Your task to perform on an android device: open app "Adobe Acrobat Reader" Image 0: 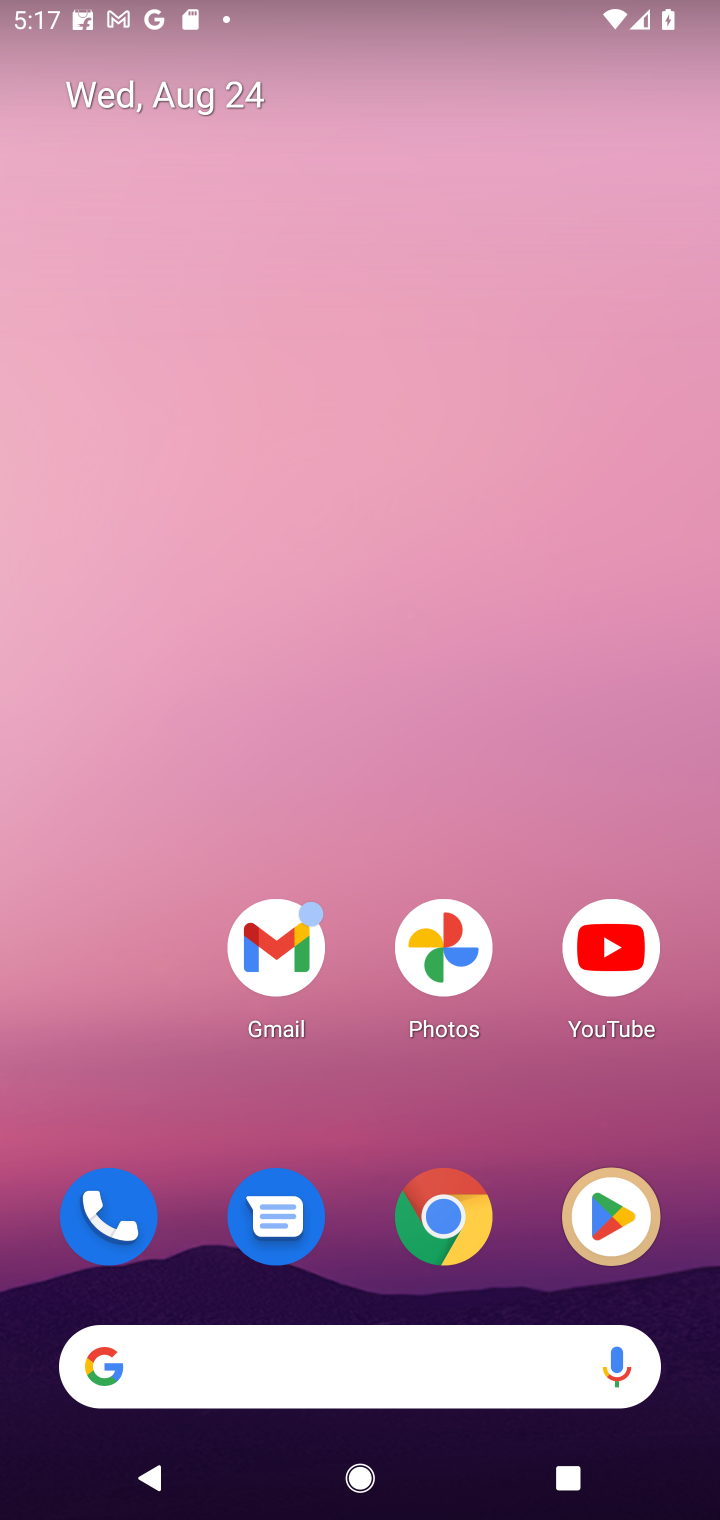
Step 0: click (595, 1192)
Your task to perform on an android device: open app "Adobe Acrobat Reader" Image 1: 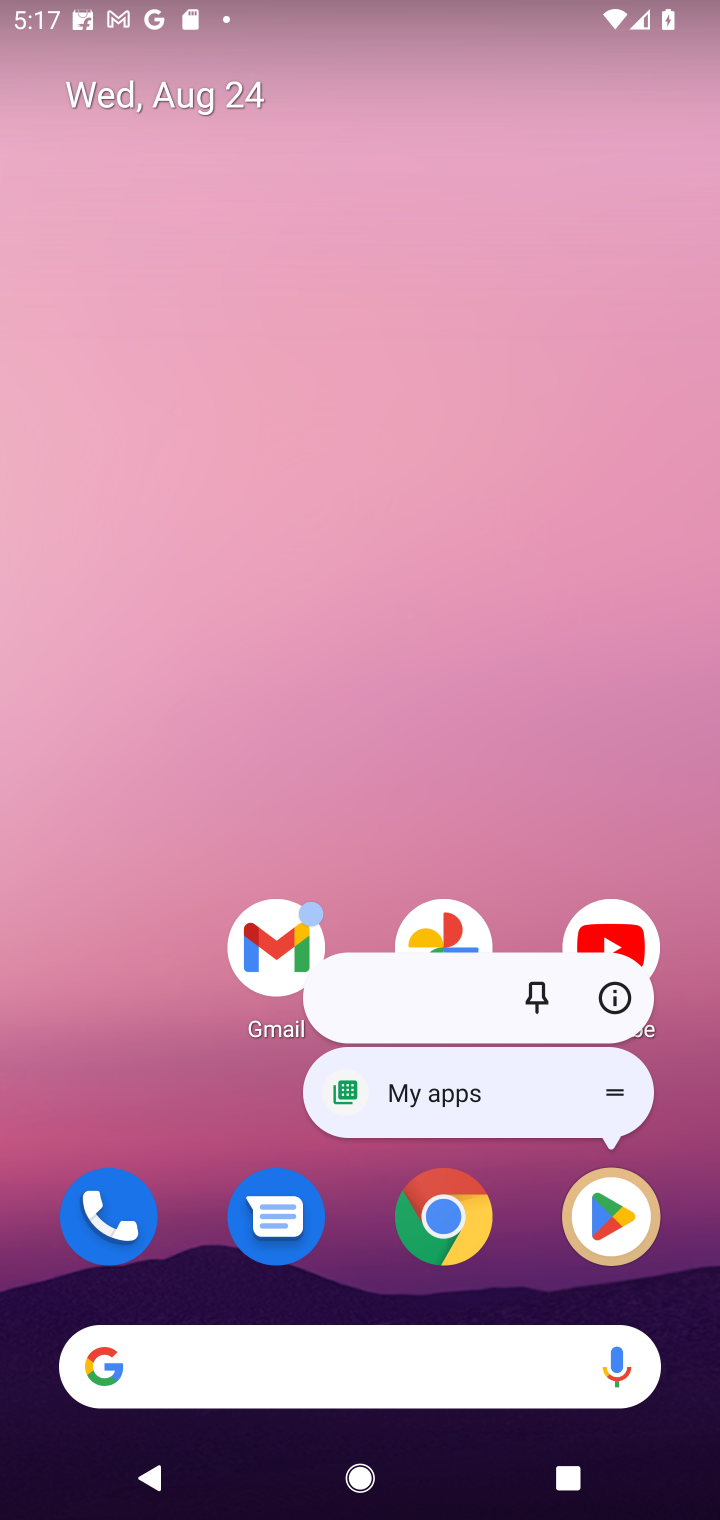
Step 1: click (625, 1190)
Your task to perform on an android device: open app "Adobe Acrobat Reader" Image 2: 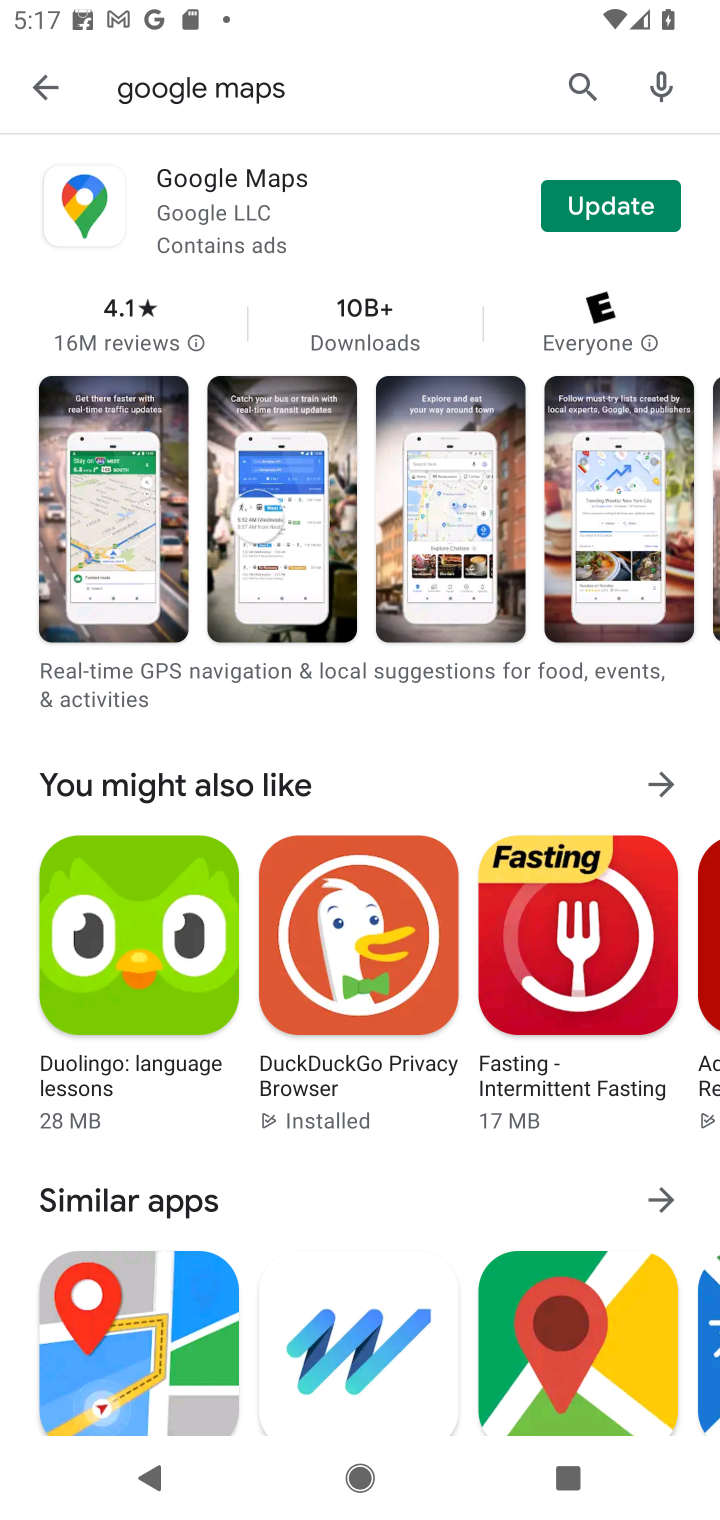
Step 2: click (589, 84)
Your task to perform on an android device: open app "Adobe Acrobat Reader" Image 3: 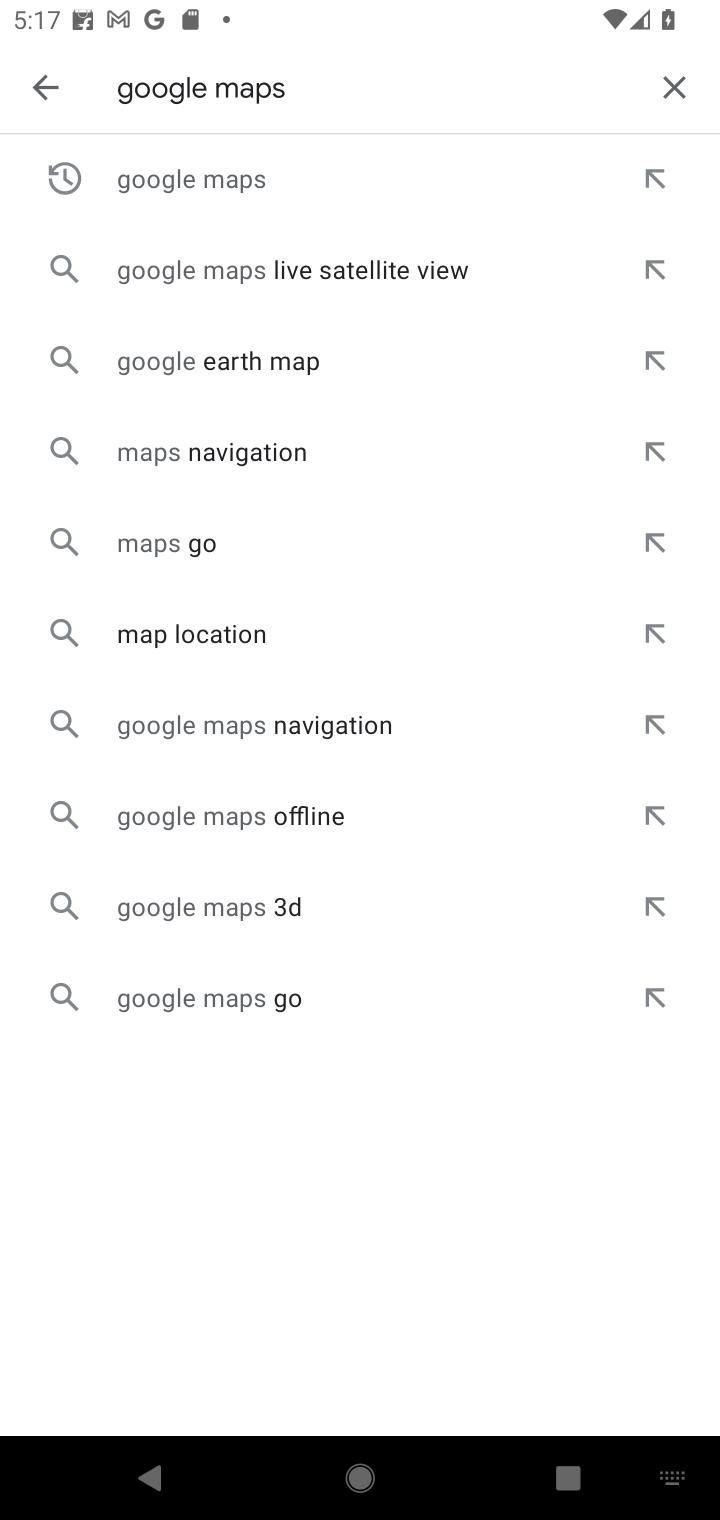
Step 3: click (656, 89)
Your task to perform on an android device: open app "Adobe Acrobat Reader" Image 4: 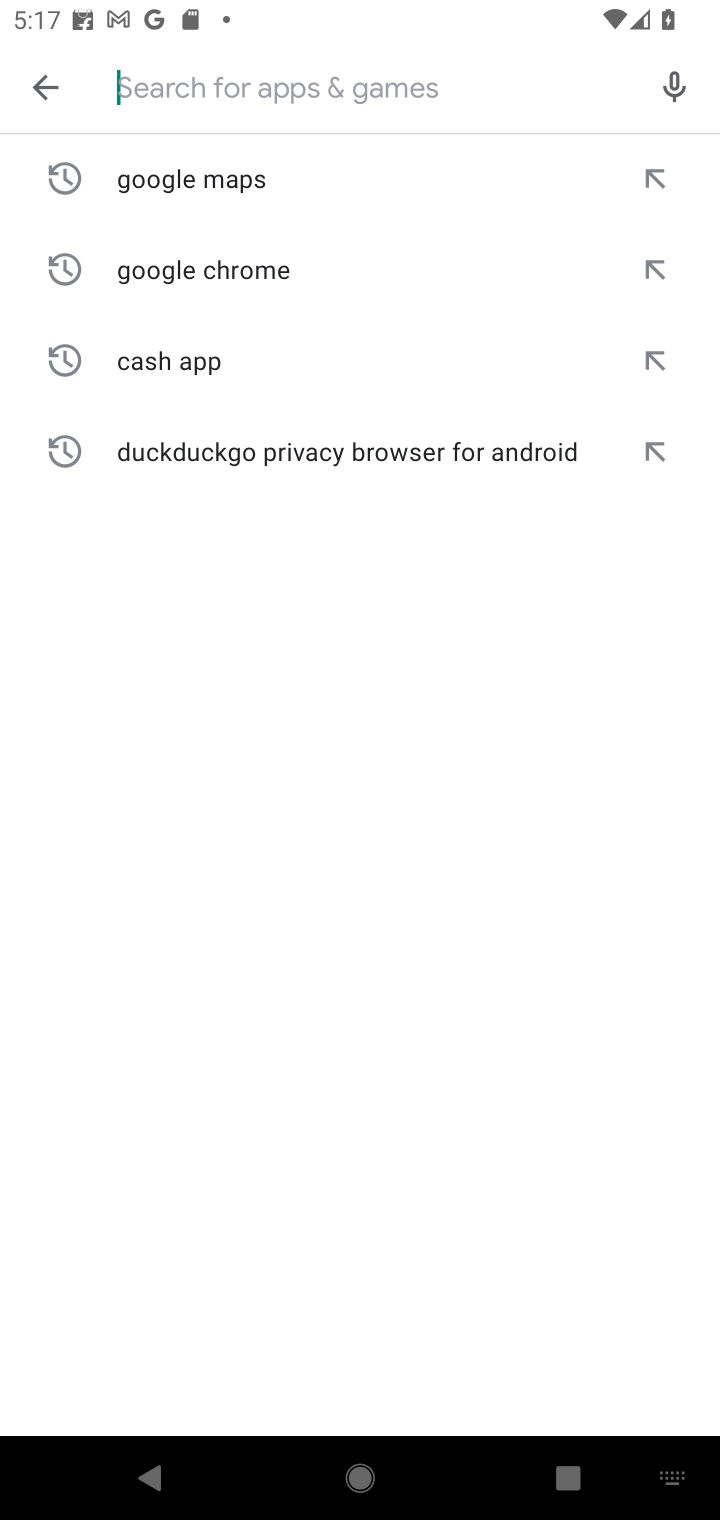
Step 4: type "Adobe Acrobat Reade"
Your task to perform on an android device: open app "Adobe Acrobat Reader" Image 5: 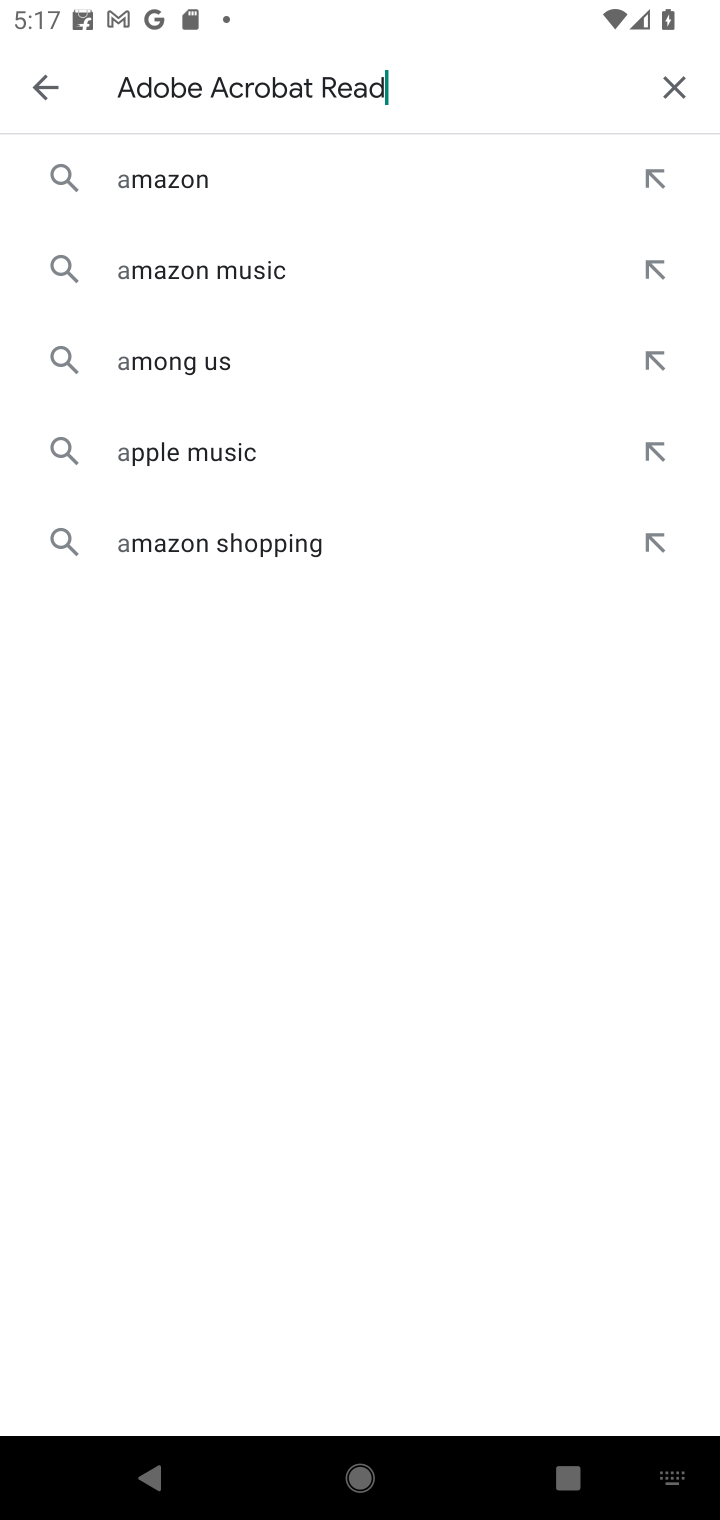
Step 5: type ""
Your task to perform on an android device: open app "Adobe Acrobat Reader" Image 6: 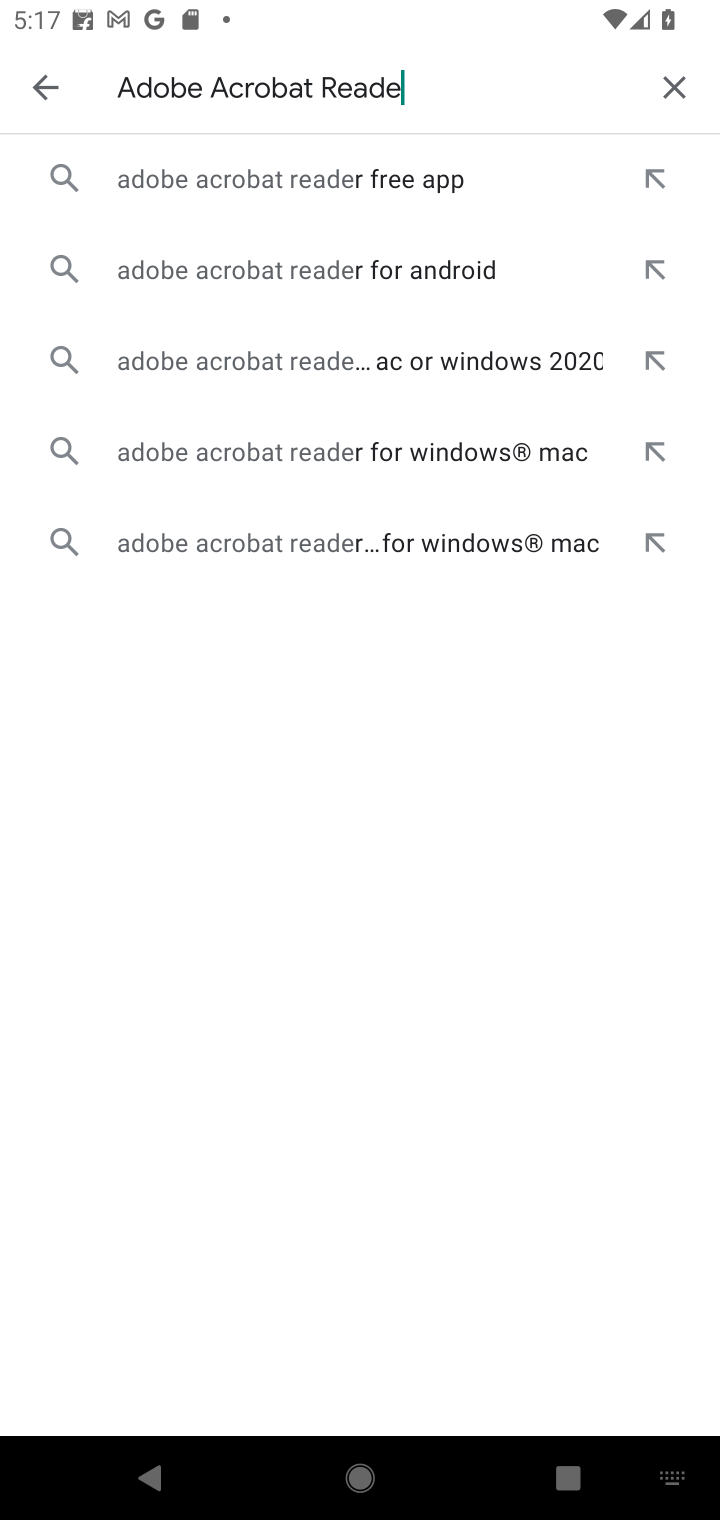
Step 6: click (286, 198)
Your task to perform on an android device: open app "Adobe Acrobat Reader" Image 7: 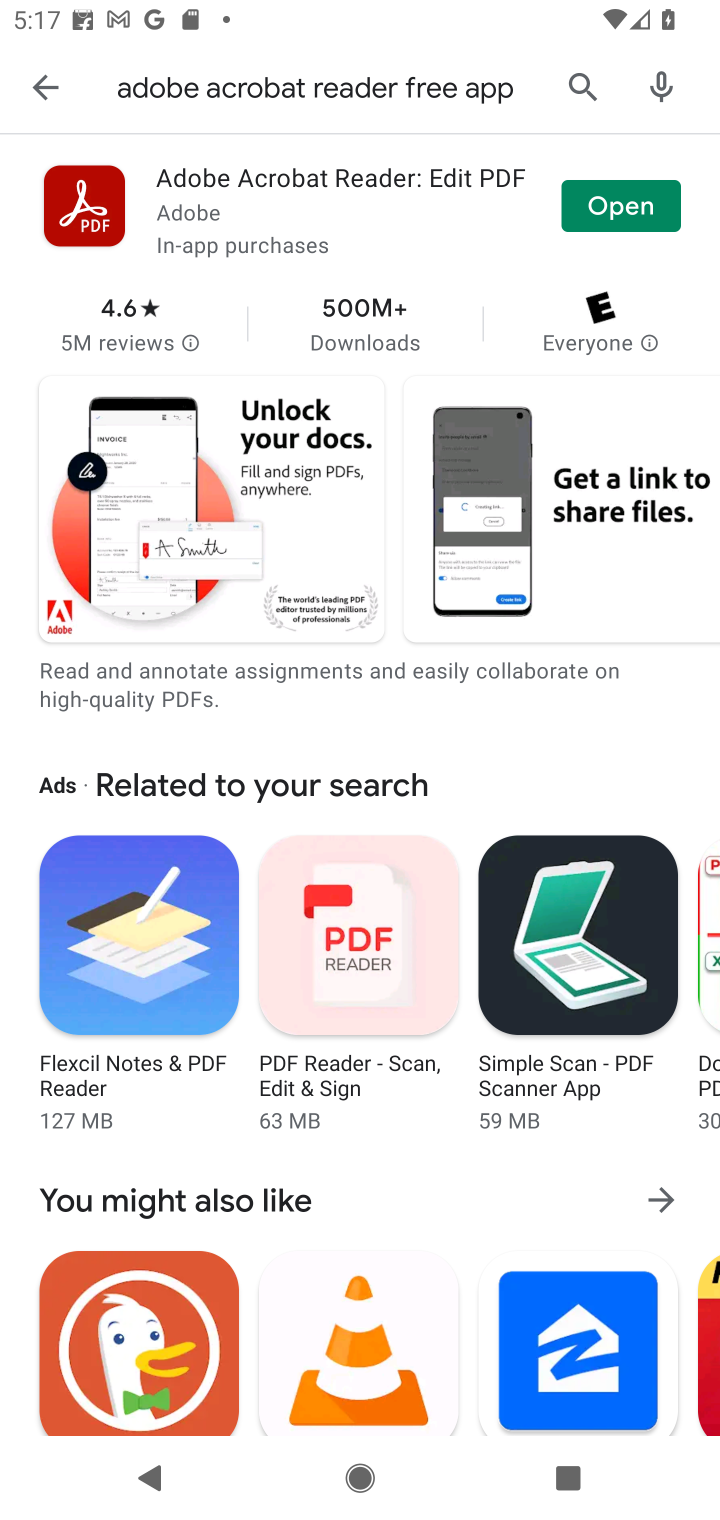
Step 7: click (648, 226)
Your task to perform on an android device: open app "Adobe Acrobat Reader" Image 8: 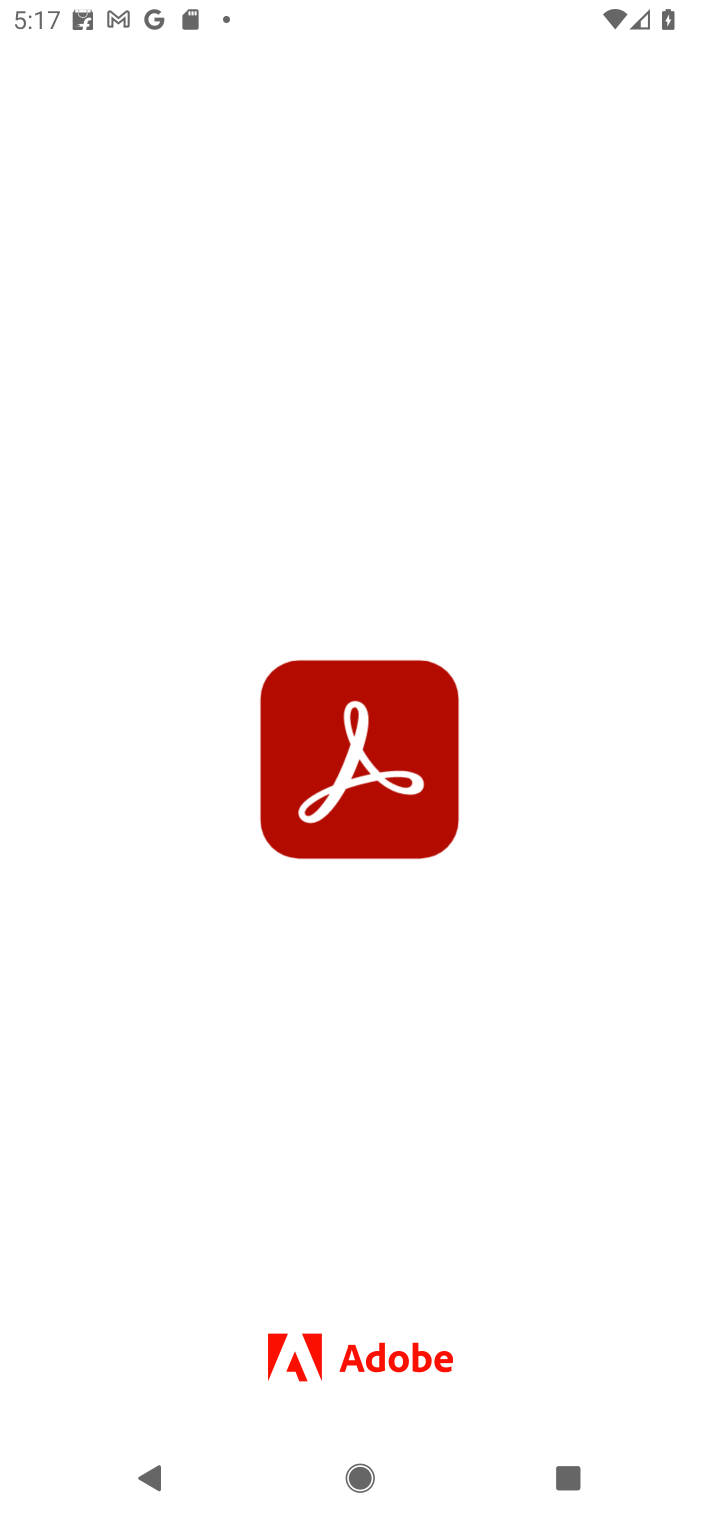
Step 8: task complete